Your task to perform on an android device: Open Google Image 0: 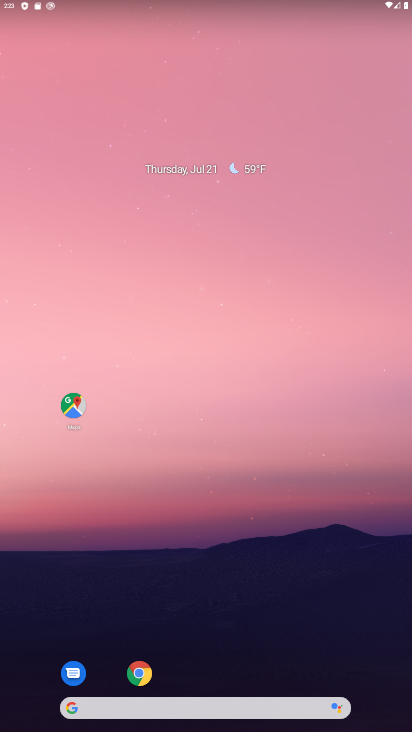
Step 0: click (137, 671)
Your task to perform on an android device: Open Google Image 1: 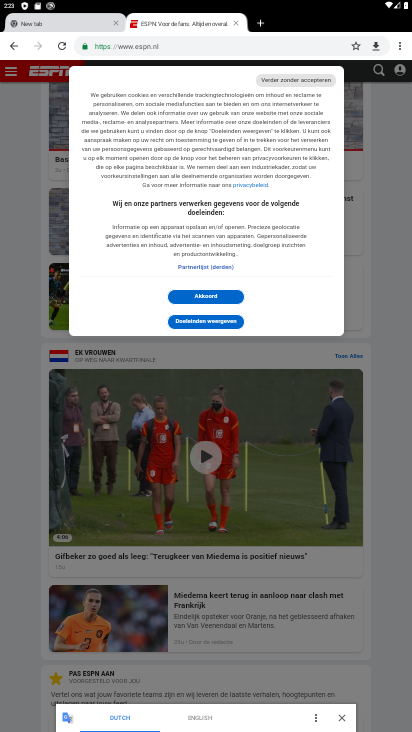
Step 1: click (208, 297)
Your task to perform on an android device: Open Google Image 2: 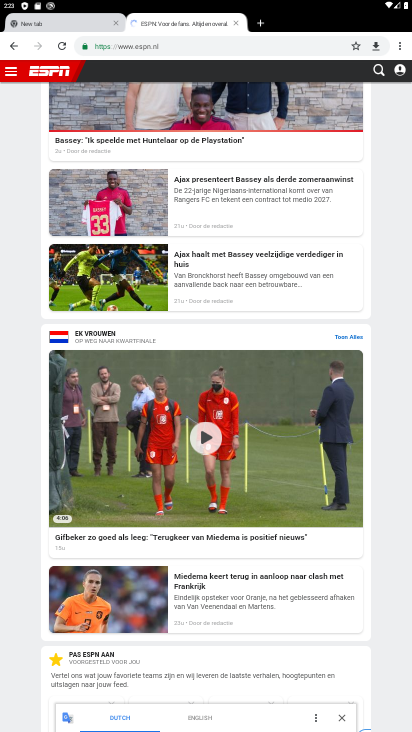
Step 2: task complete